Your task to perform on an android device: What is the recent news? Image 0: 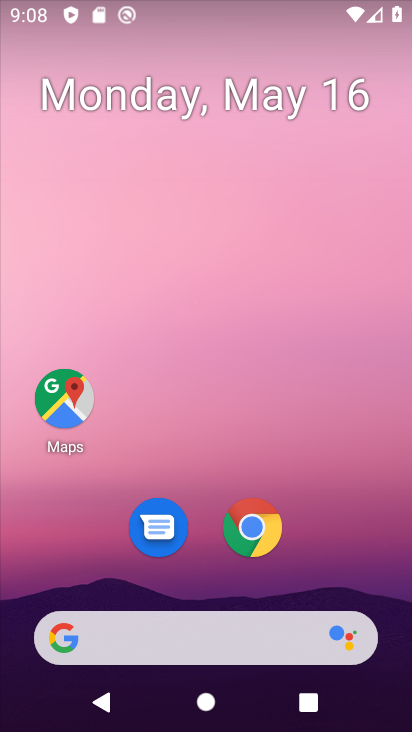
Step 0: click (115, 643)
Your task to perform on an android device: What is the recent news? Image 1: 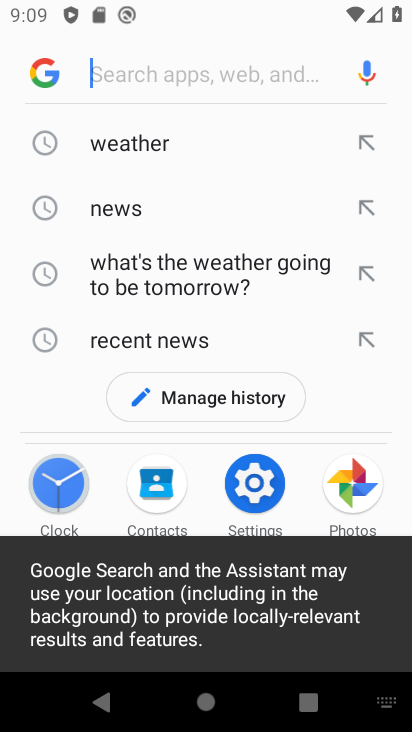
Step 1: click (132, 334)
Your task to perform on an android device: What is the recent news? Image 2: 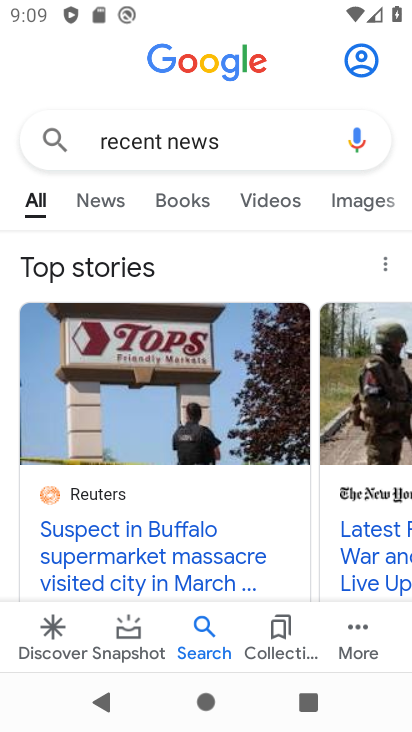
Step 2: click (106, 207)
Your task to perform on an android device: What is the recent news? Image 3: 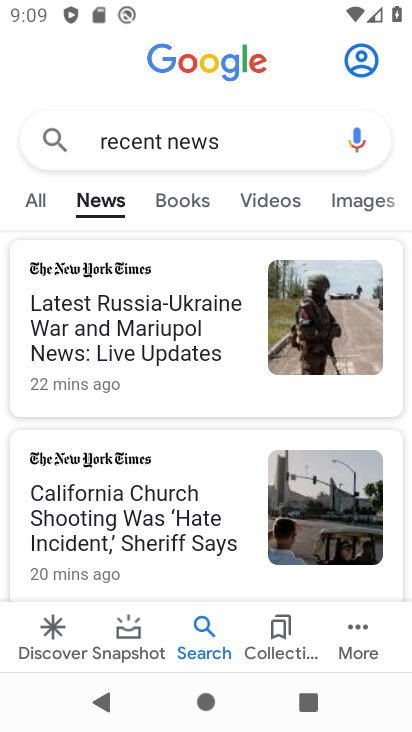
Step 3: click (100, 515)
Your task to perform on an android device: What is the recent news? Image 4: 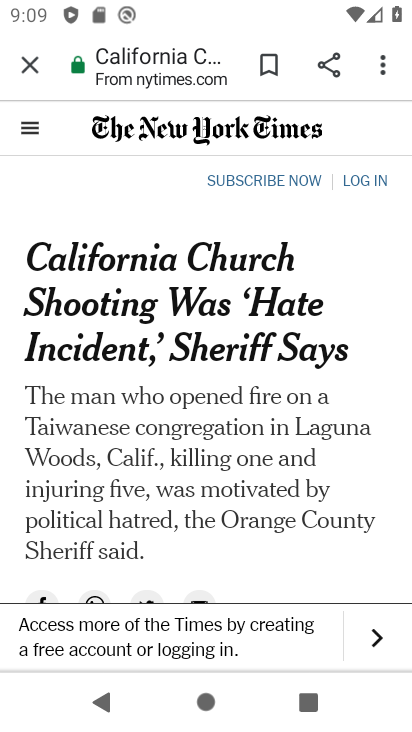
Step 4: task complete